Your task to perform on an android device: change keyboard looks Image 0: 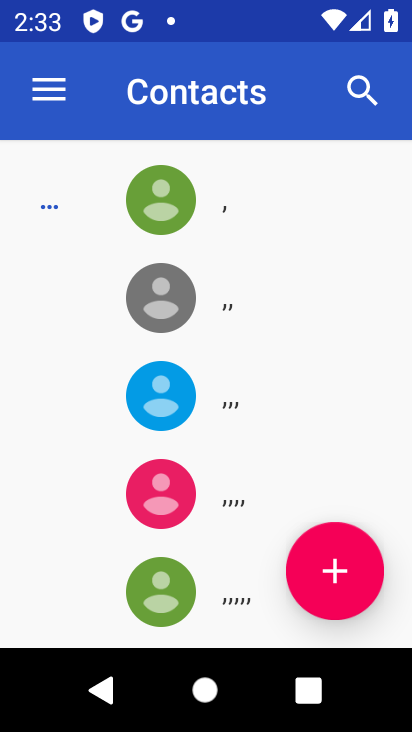
Step 0: press home button
Your task to perform on an android device: change keyboard looks Image 1: 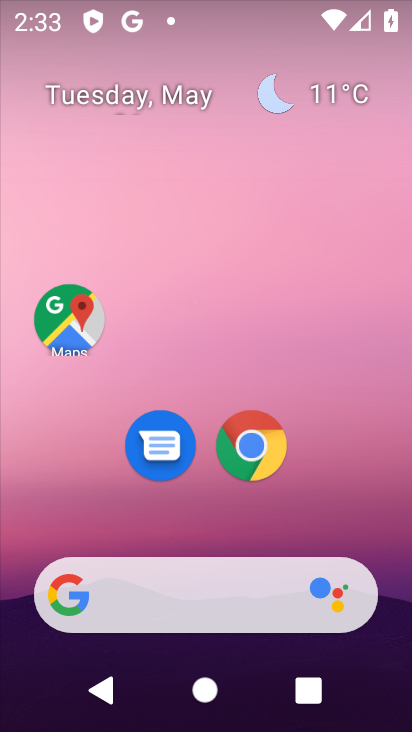
Step 1: drag from (223, 491) to (250, 186)
Your task to perform on an android device: change keyboard looks Image 2: 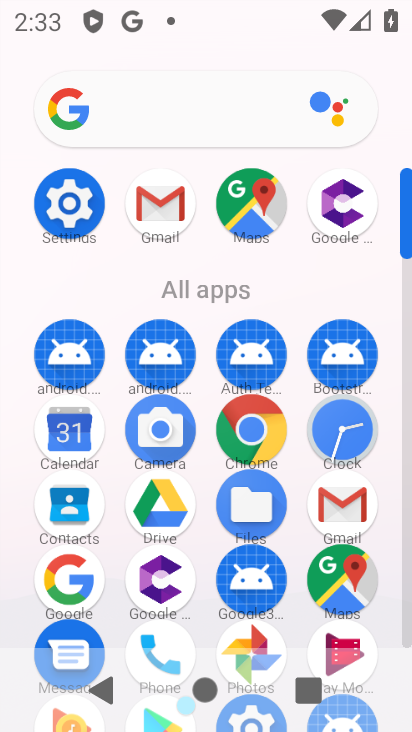
Step 2: click (84, 193)
Your task to perform on an android device: change keyboard looks Image 3: 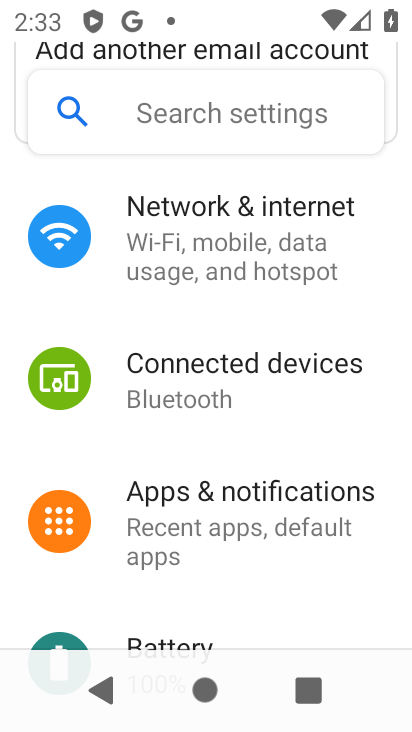
Step 3: drag from (223, 617) to (270, 188)
Your task to perform on an android device: change keyboard looks Image 4: 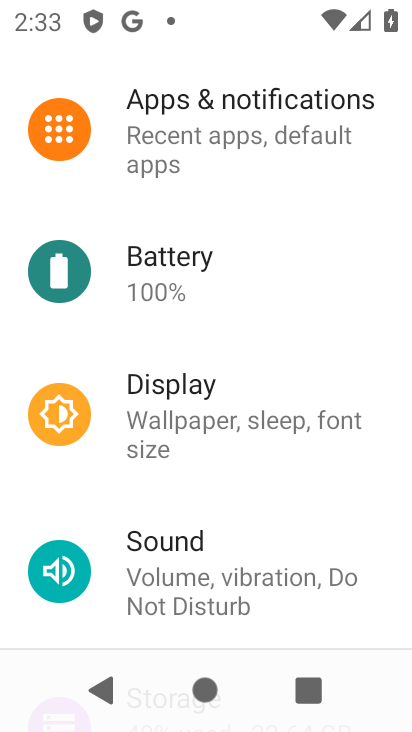
Step 4: drag from (257, 600) to (265, 297)
Your task to perform on an android device: change keyboard looks Image 5: 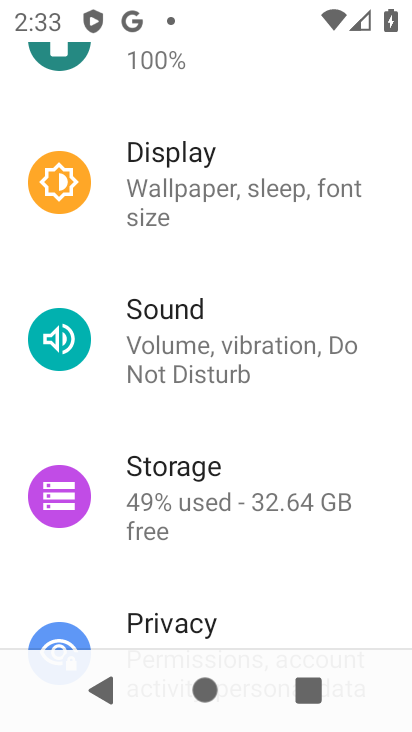
Step 5: drag from (265, 541) to (270, 291)
Your task to perform on an android device: change keyboard looks Image 6: 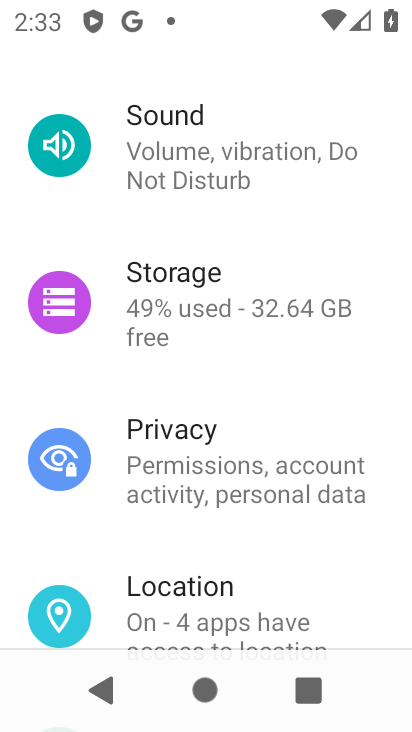
Step 6: drag from (219, 618) to (217, 369)
Your task to perform on an android device: change keyboard looks Image 7: 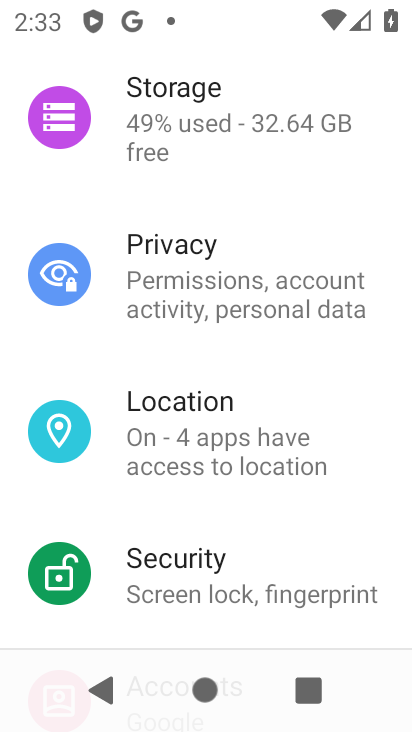
Step 7: drag from (226, 596) to (226, 360)
Your task to perform on an android device: change keyboard looks Image 8: 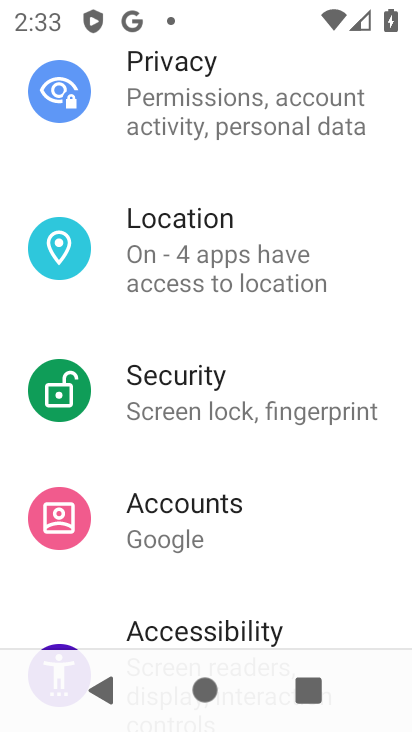
Step 8: drag from (194, 586) to (198, 381)
Your task to perform on an android device: change keyboard looks Image 9: 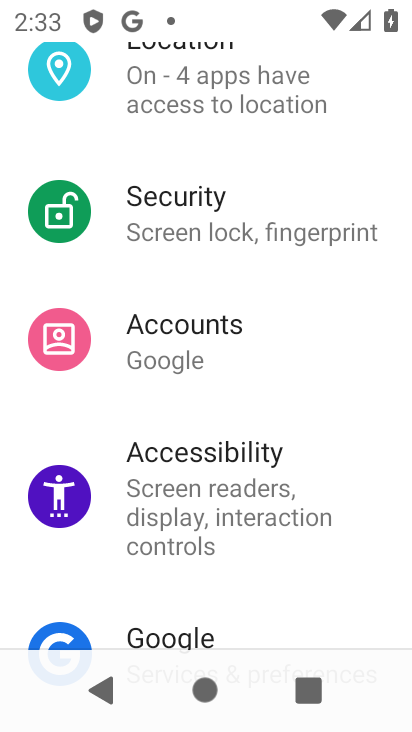
Step 9: drag from (228, 574) to (241, 312)
Your task to perform on an android device: change keyboard looks Image 10: 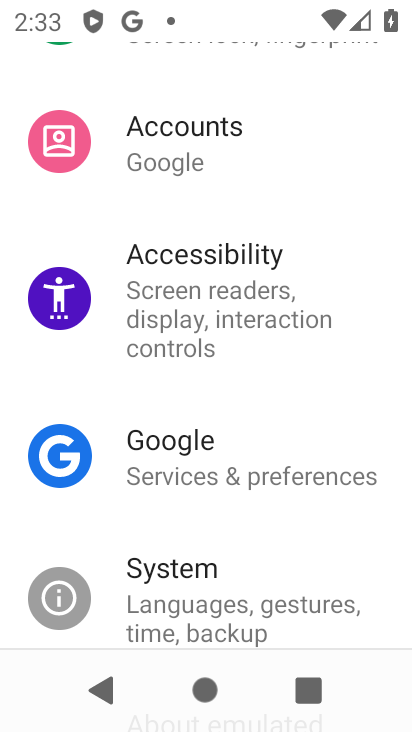
Step 10: click (183, 296)
Your task to perform on an android device: change keyboard looks Image 11: 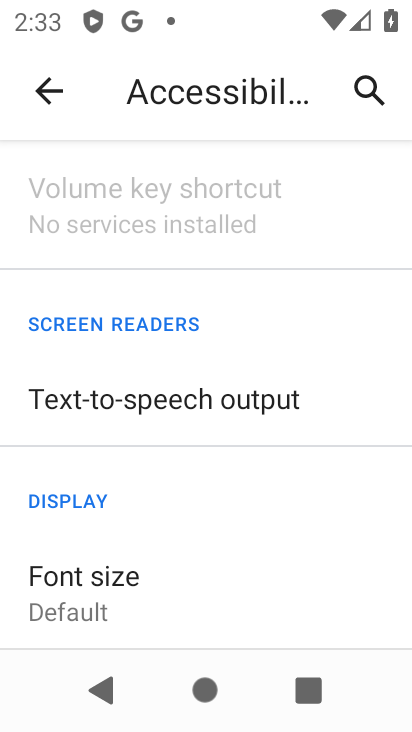
Step 11: click (33, 96)
Your task to perform on an android device: change keyboard looks Image 12: 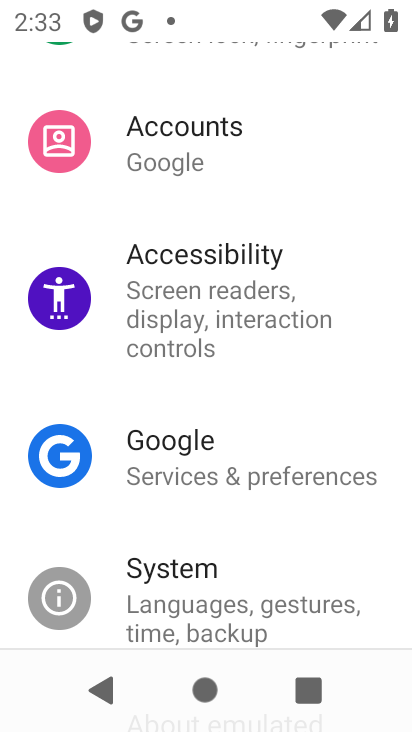
Step 12: click (164, 577)
Your task to perform on an android device: change keyboard looks Image 13: 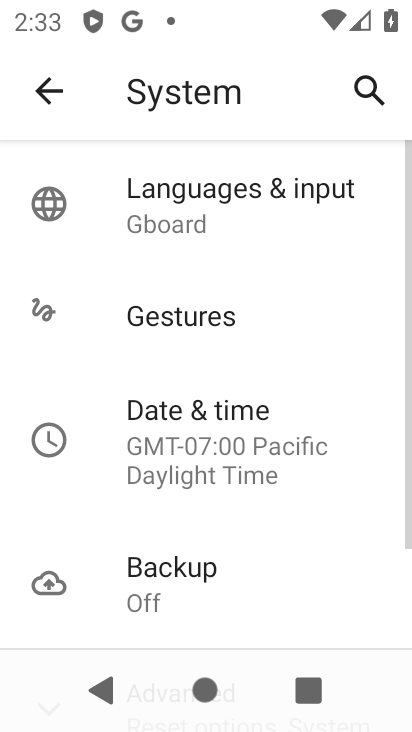
Step 13: click (192, 235)
Your task to perform on an android device: change keyboard looks Image 14: 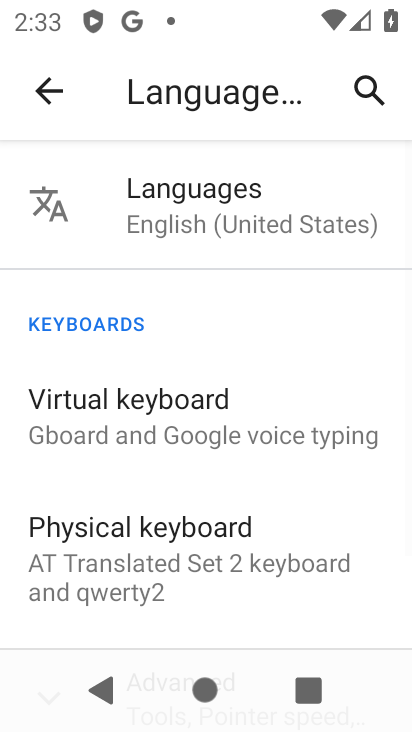
Step 14: click (181, 422)
Your task to perform on an android device: change keyboard looks Image 15: 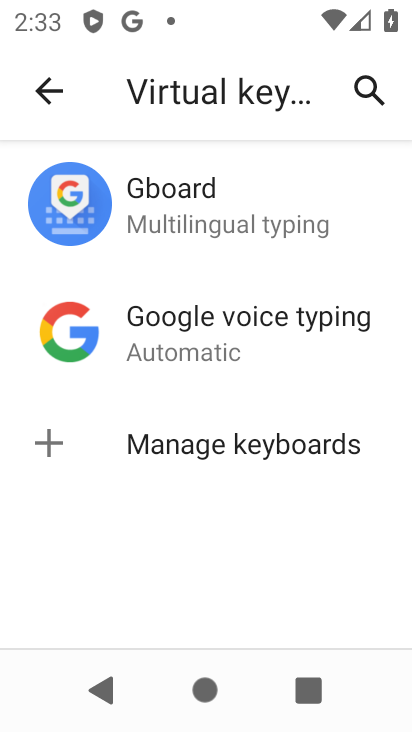
Step 15: click (178, 200)
Your task to perform on an android device: change keyboard looks Image 16: 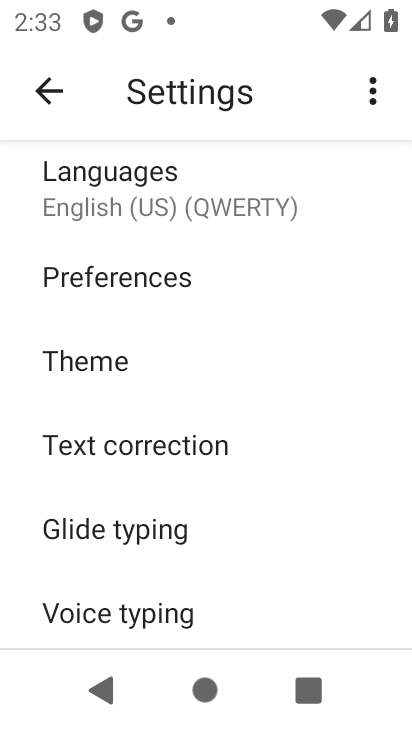
Step 16: click (118, 350)
Your task to perform on an android device: change keyboard looks Image 17: 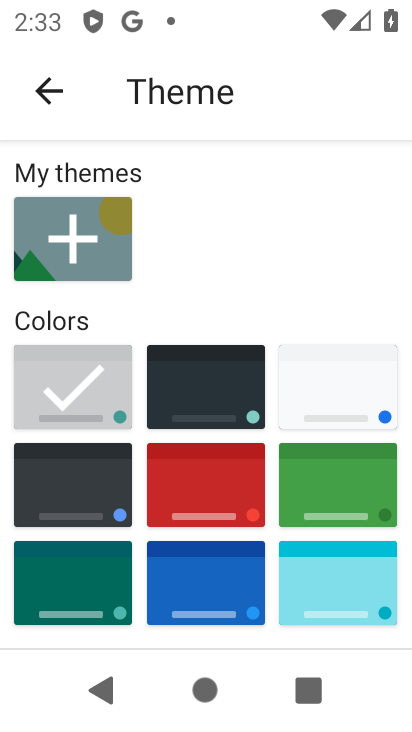
Step 17: click (221, 479)
Your task to perform on an android device: change keyboard looks Image 18: 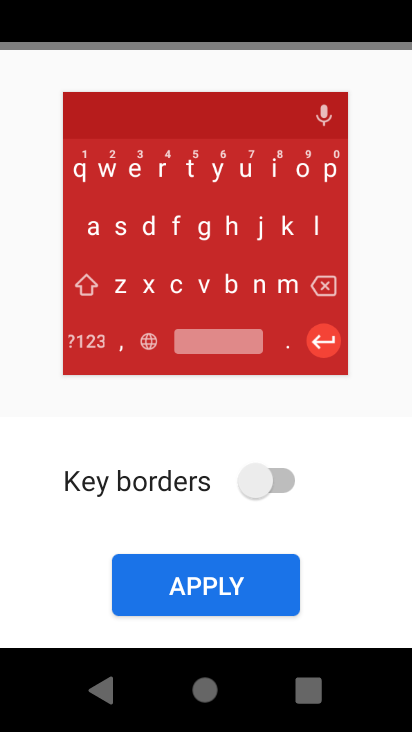
Step 18: click (263, 586)
Your task to perform on an android device: change keyboard looks Image 19: 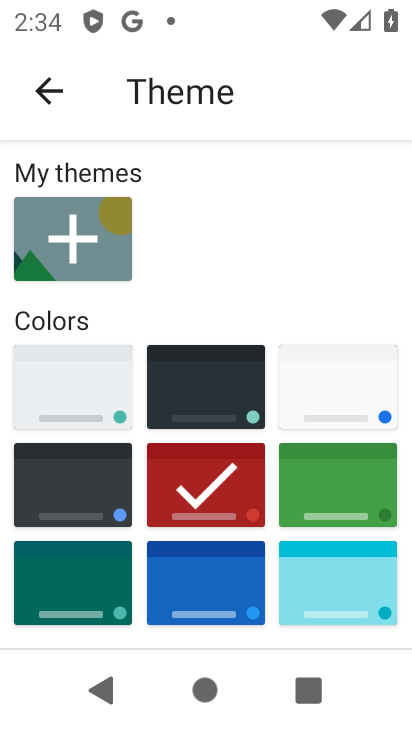
Step 19: task complete